Your task to perform on an android device: turn pop-ups on in chrome Image 0: 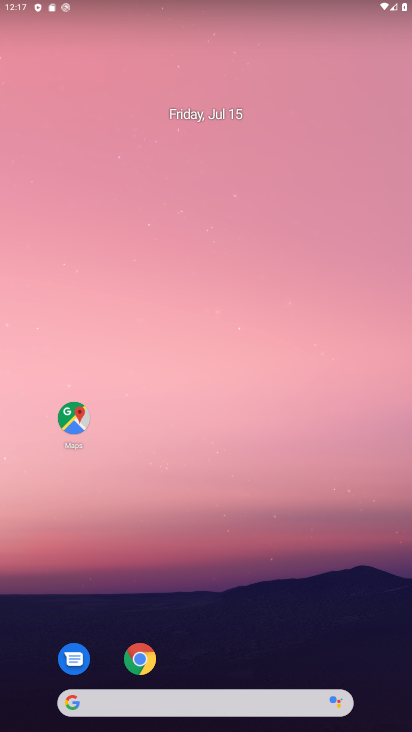
Step 0: click (138, 663)
Your task to perform on an android device: turn pop-ups on in chrome Image 1: 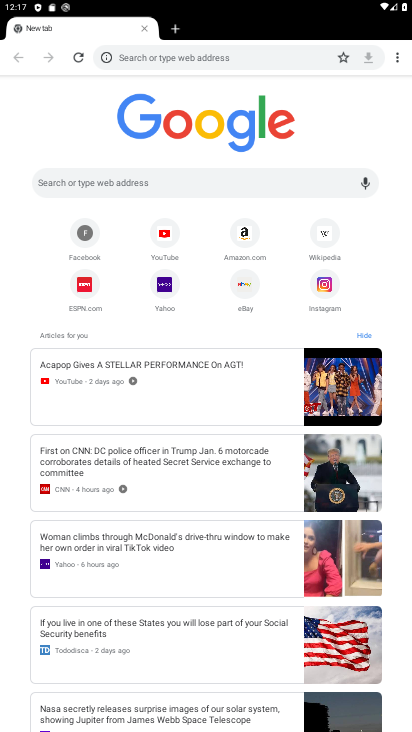
Step 1: click (393, 63)
Your task to perform on an android device: turn pop-ups on in chrome Image 2: 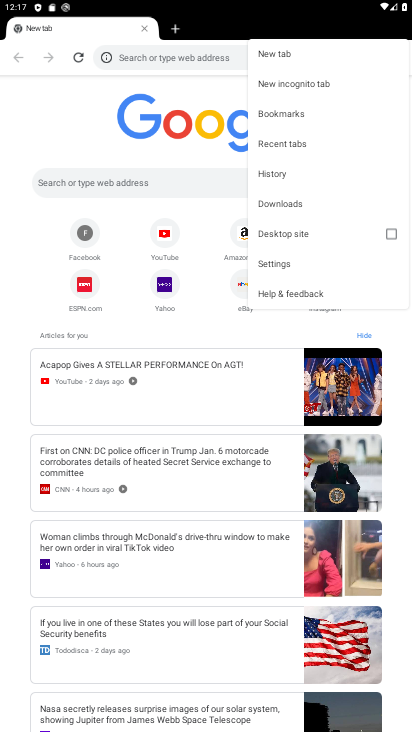
Step 2: click (292, 262)
Your task to perform on an android device: turn pop-ups on in chrome Image 3: 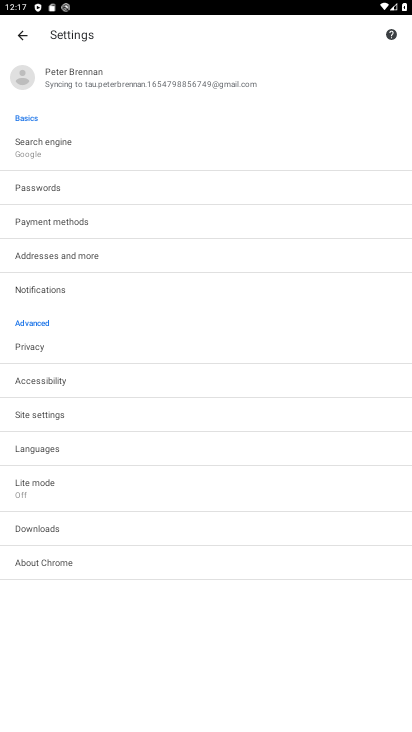
Step 3: click (53, 412)
Your task to perform on an android device: turn pop-ups on in chrome Image 4: 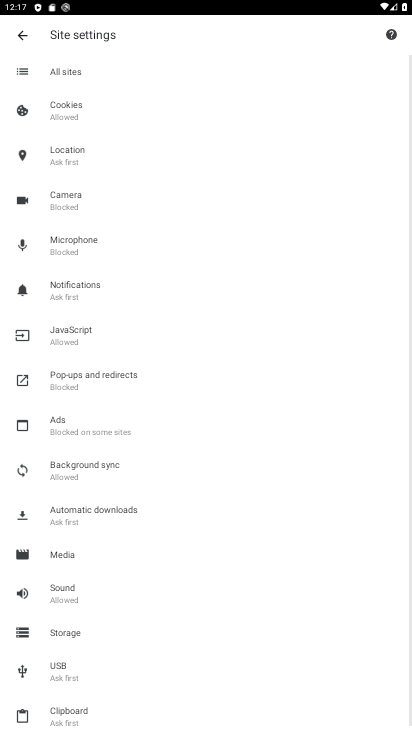
Step 4: click (90, 379)
Your task to perform on an android device: turn pop-ups on in chrome Image 5: 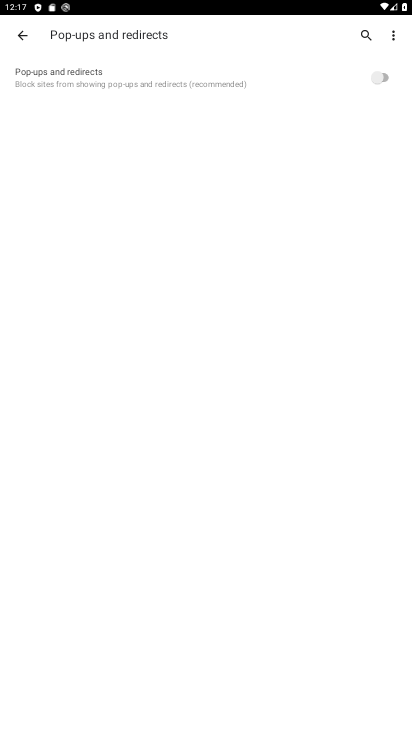
Step 5: click (385, 76)
Your task to perform on an android device: turn pop-ups on in chrome Image 6: 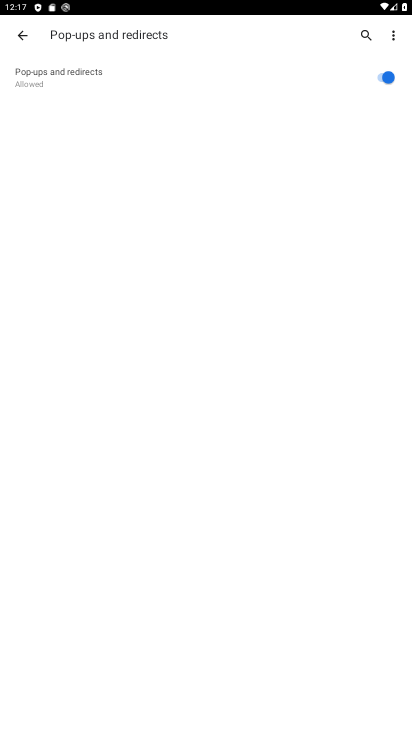
Step 6: task complete